Your task to perform on an android device: Check the weather Image 0: 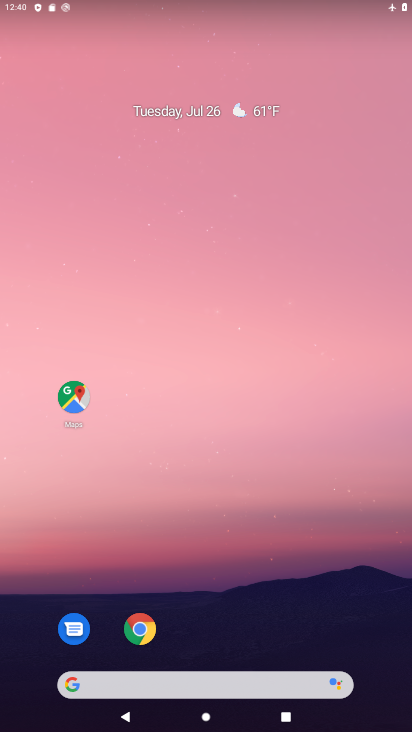
Step 0: click (168, 699)
Your task to perform on an android device: Check the weather Image 1: 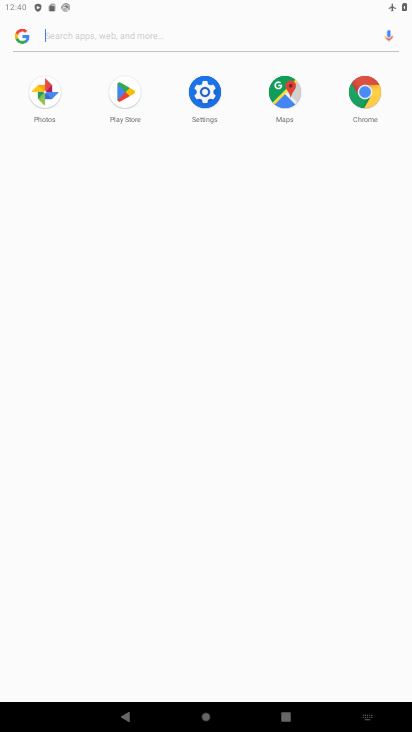
Step 1: click (77, 38)
Your task to perform on an android device: Check the weather Image 2: 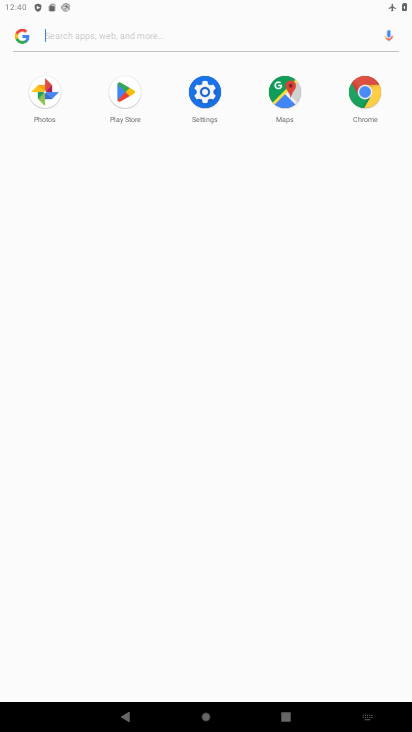
Step 2: type " weather"
Your task to perform on an android device: Check the weather Image 3: 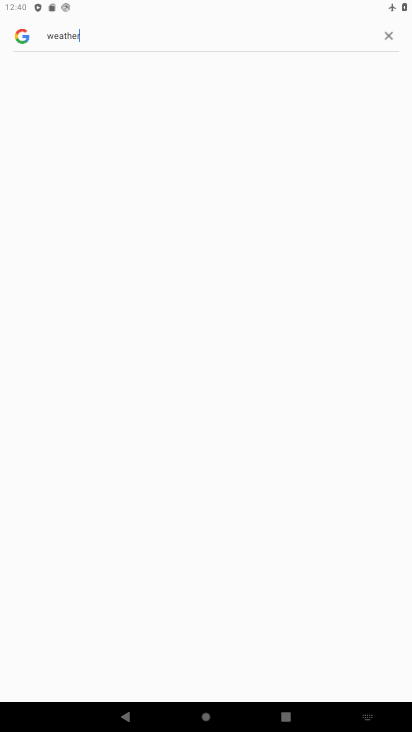
Step 3: type ""
Your task to perform on an android device: Check the weather Image 4: 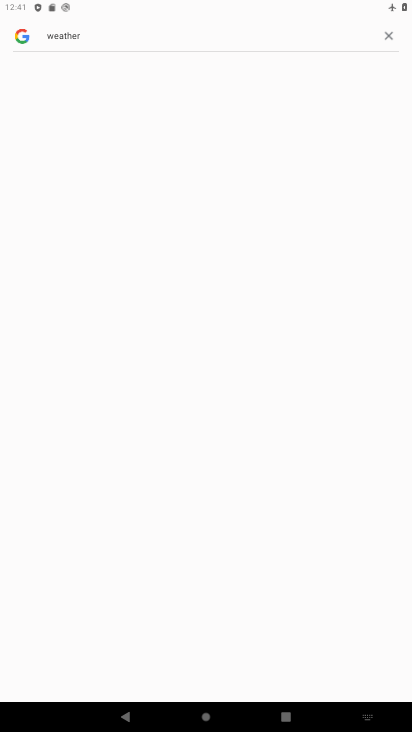
Step 4: task complete